Your task to perform on an android device: turn off location history Image 0: 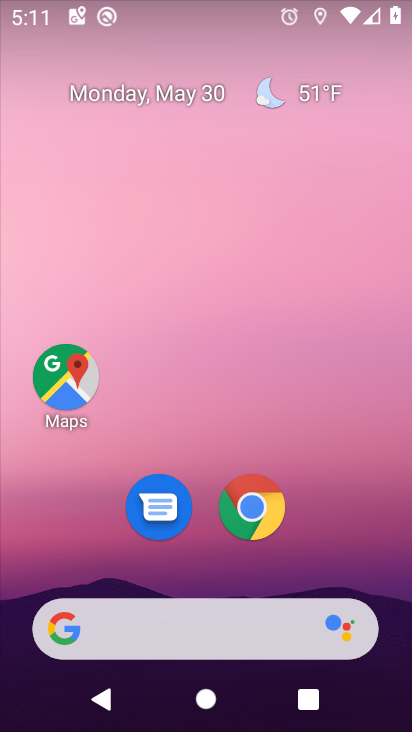
Step 0: press home button
Your task to perform on an android device: turn off location history Image 1: 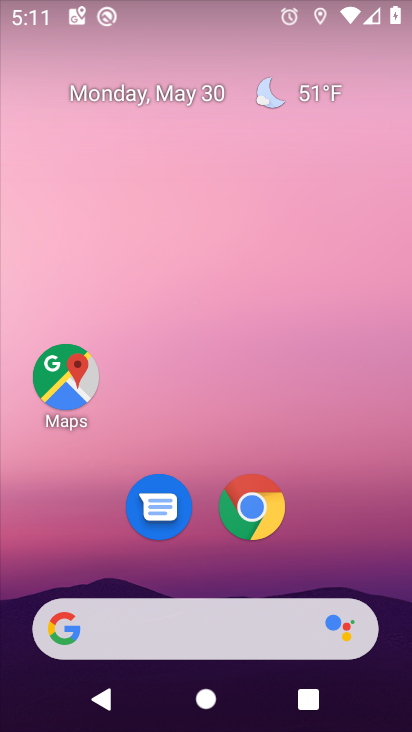
Step 1: drag from (388, 545) to (239, 179)
Your task to perform on an android device: turn off location history Image 2: 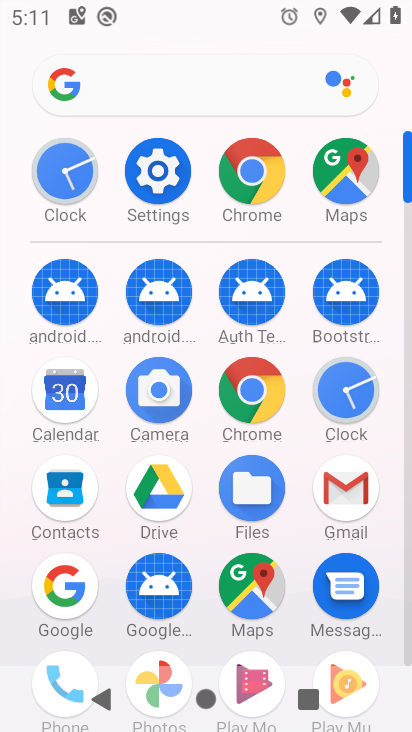
Step 2: click (325, 154)
Your task to perform on an android device: turn off location history Image 3: 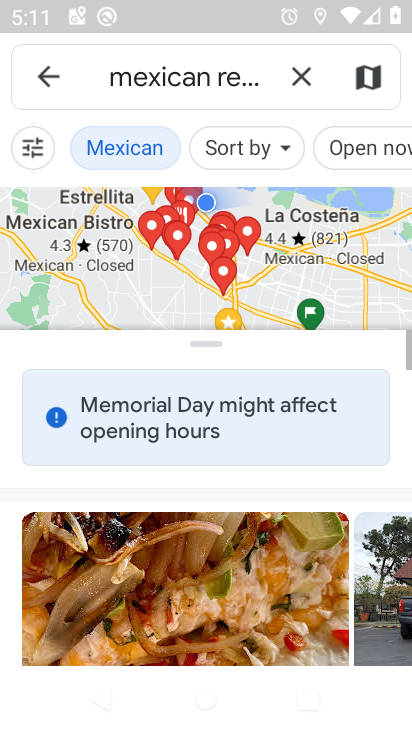
Step 3: click (44, 89)
Your task to perform on an android device: turn off location history Image 4: 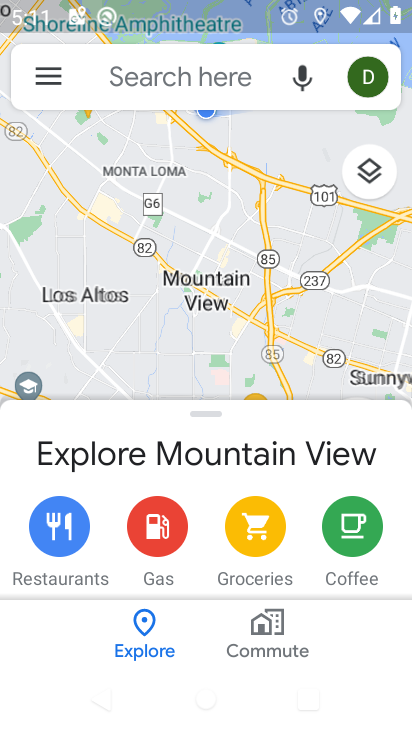
Step 4: click (44, 89)
Your task to perform on an android device: turn off location history Image 5: 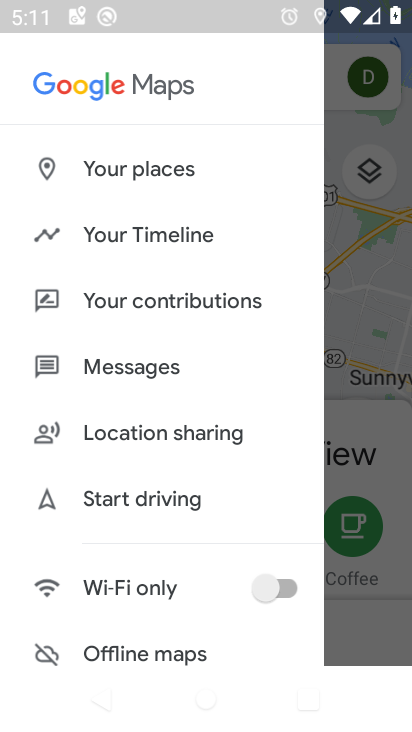
Step 5: click (110, 228)
Your task to perform on an android device: turn off location history Image 6: 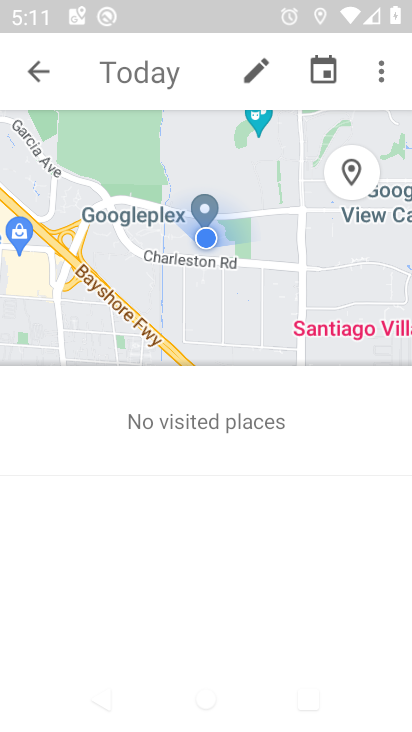
Step 6: click (377, 86)
Your task to perform on an android device: turn off location history Image 7: 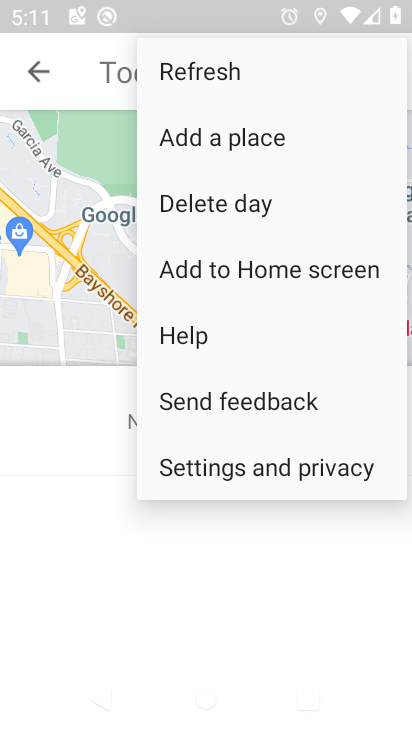
Step 7: click (294, 449)
Your task to perform on an android device: turn off location history Image 8: 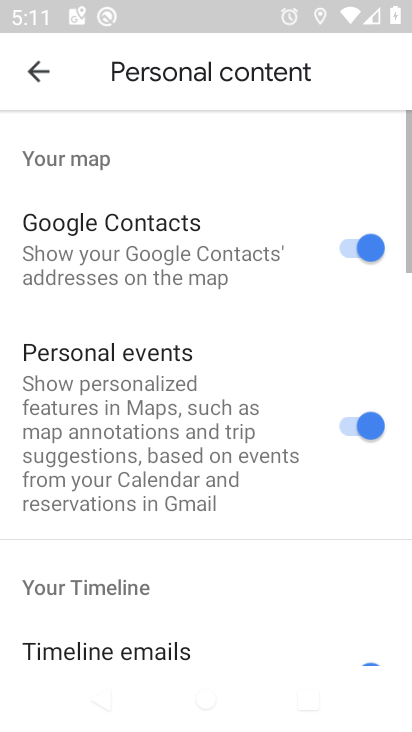
Step 8: drag from (287, 530) to (250, 43)
Your task to perform on an android device: turn off location history Image 9: 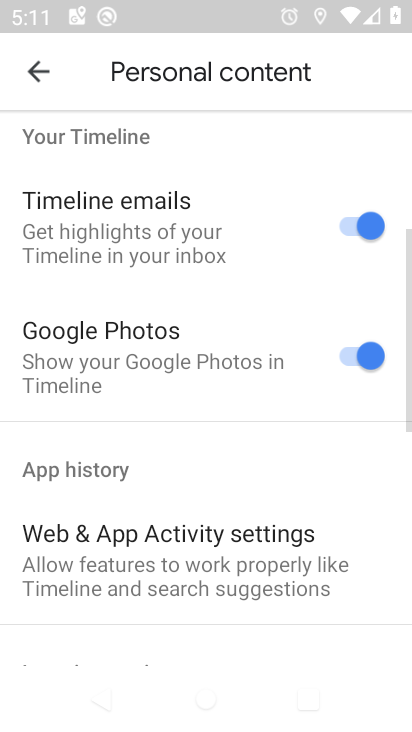
Step 9: drag from (238, 538) to (219, 182)
Your task to perform on an android device: turn off location history Image 10: 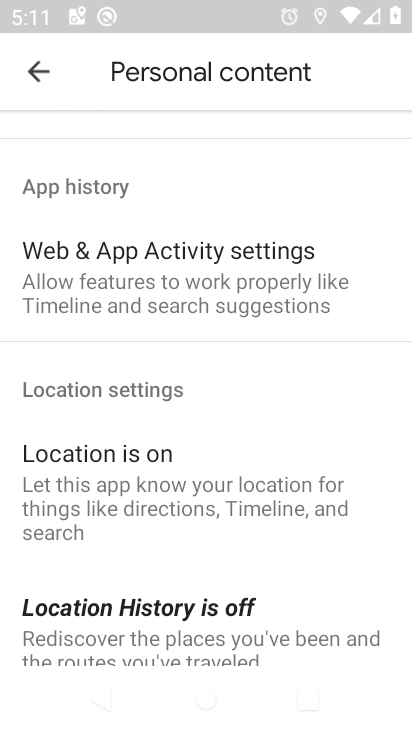
Step 10: drag from (212, 592) to (201, 323)
Your task to perform on an android device: turn off location history Image 11: 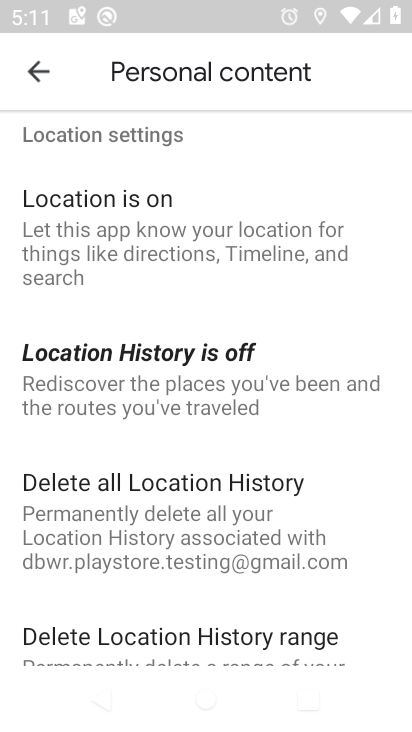
Step 11: drag from (210, 577) to (204, 341)
Your task to perform on an android device: turn off location history Image 12: 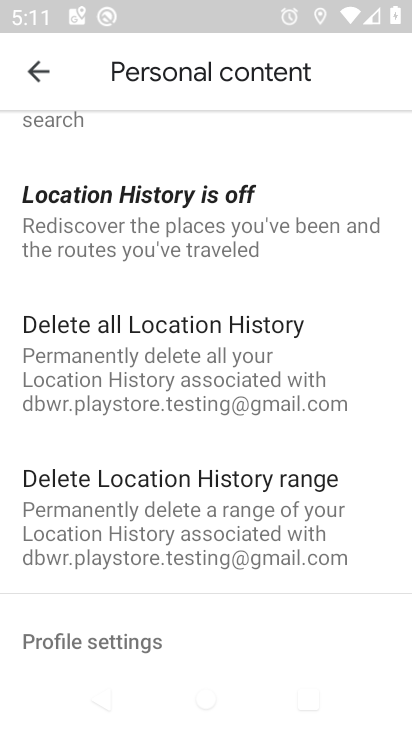
Step 12: drag from (225, 497) to (219, 427)
Your task to perform on an android device: turn off location history Image 13: 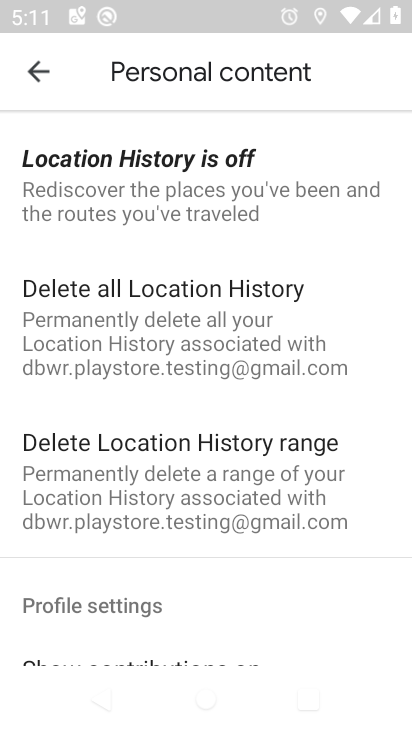
Step 13: click (197, 184)
Your task to perform on an android device: turn off location history Image 14: 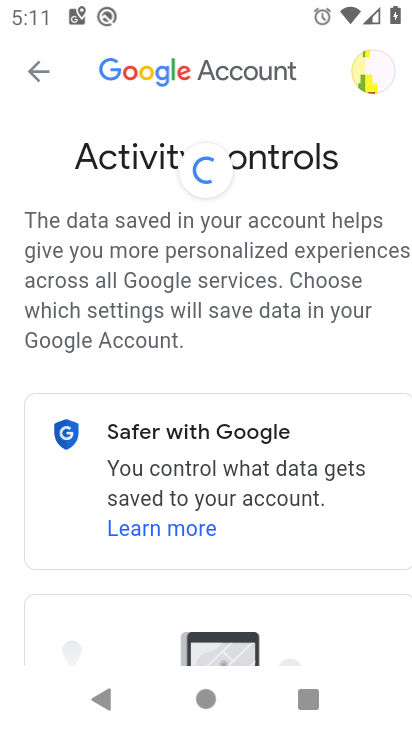
Step 14: task complete